Your task to perform on an android device: install app "Google Keep" Image 0: 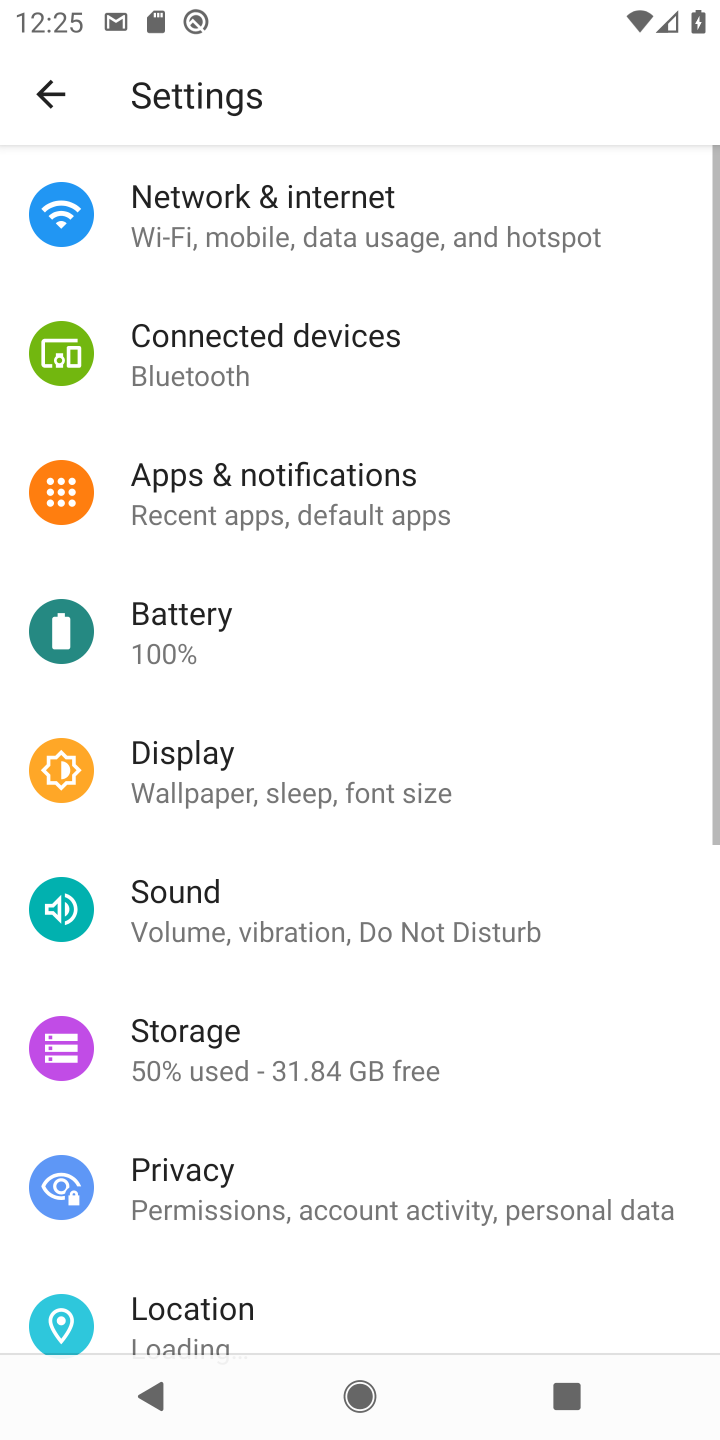
Step 0: press home button
Your task to perform on an android device: install app "Google Keep" Image 1: 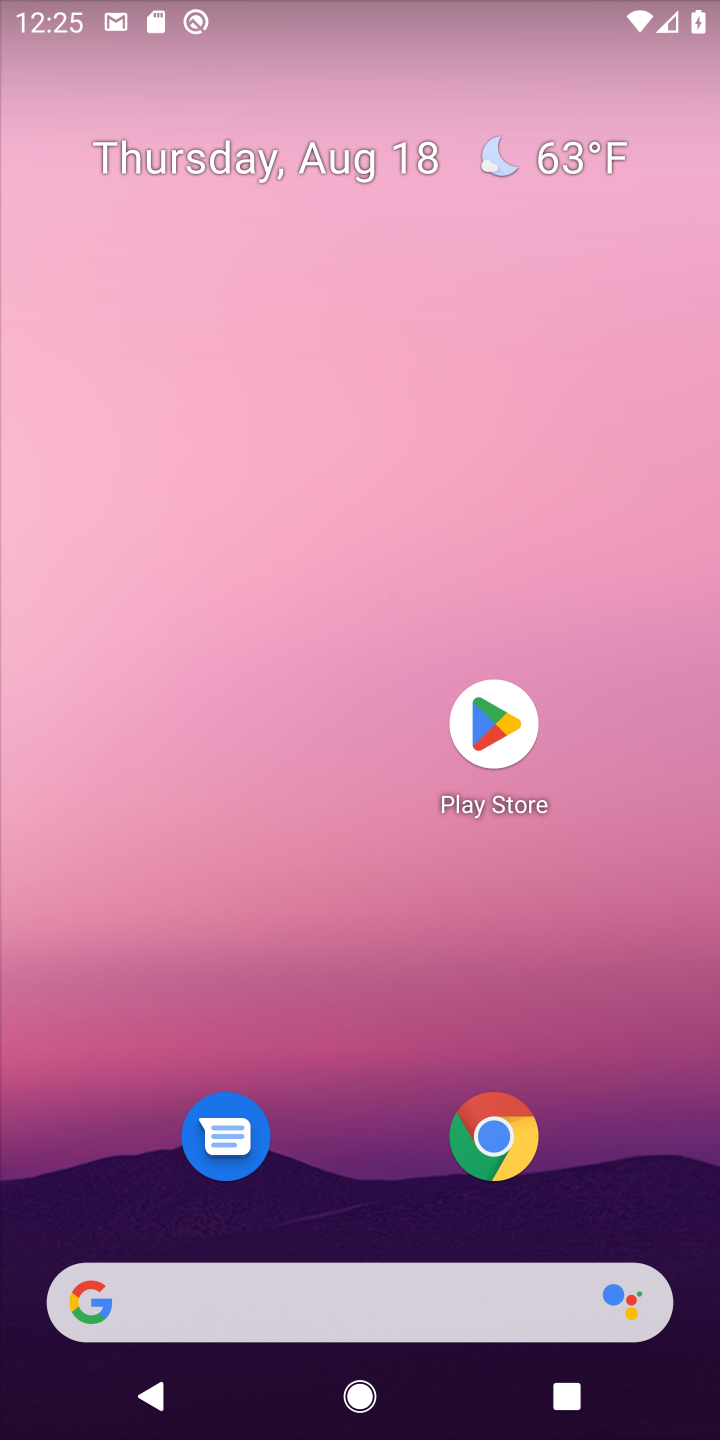
Step 1: click (490, 721)
Your task to perform on an android device: install app "Google Keep" Image 2: 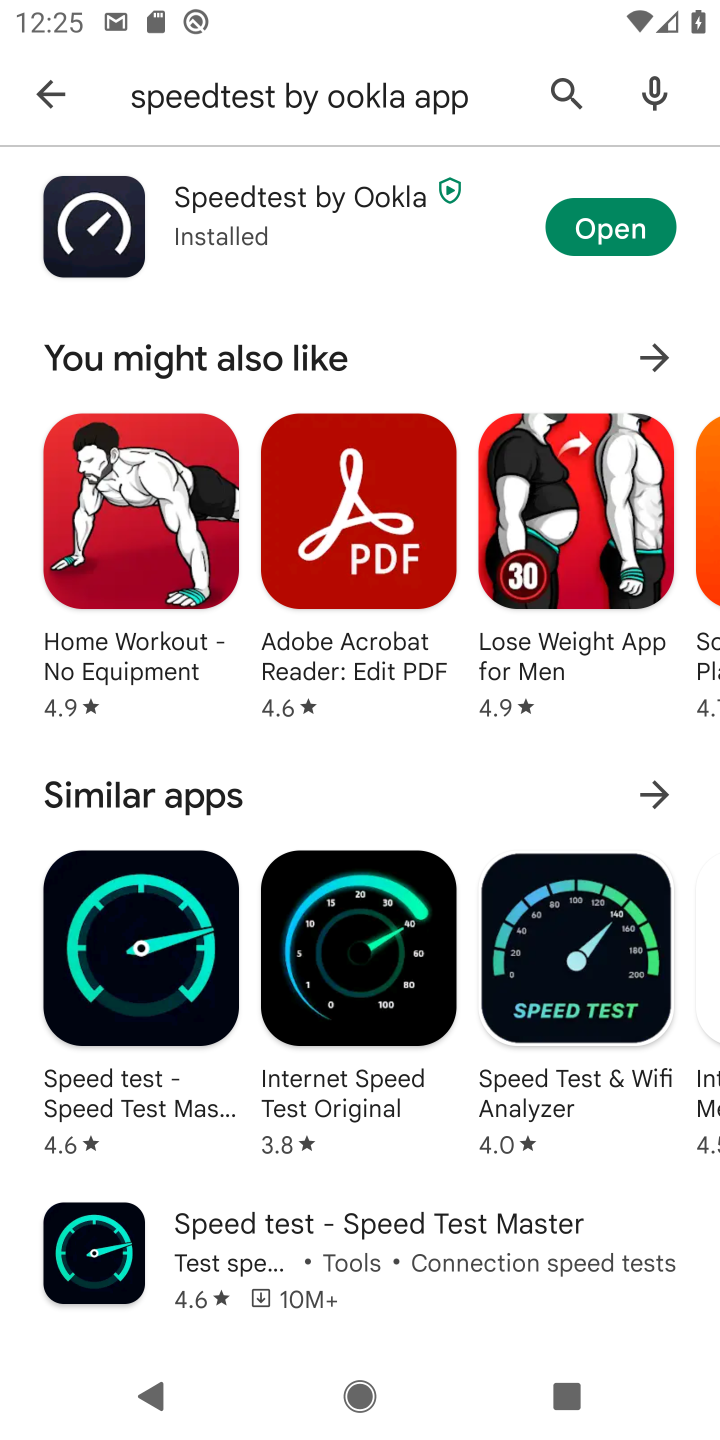
Step 2: click (549, 88)
Your task to perform on an android device: install app "Google Keep" Image 3: 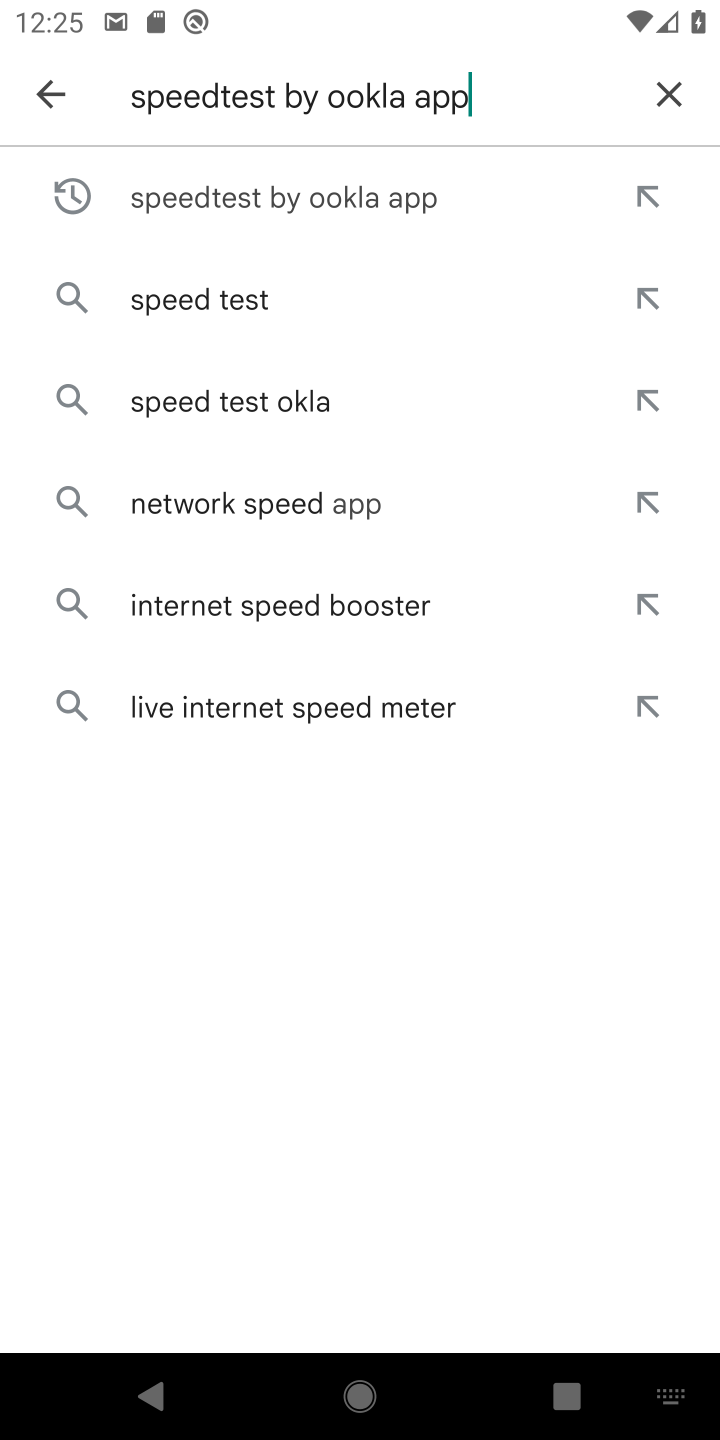
Step 3: click (664, 81)
Your task to perform on an android device: install app "Google Keep" Image 4: 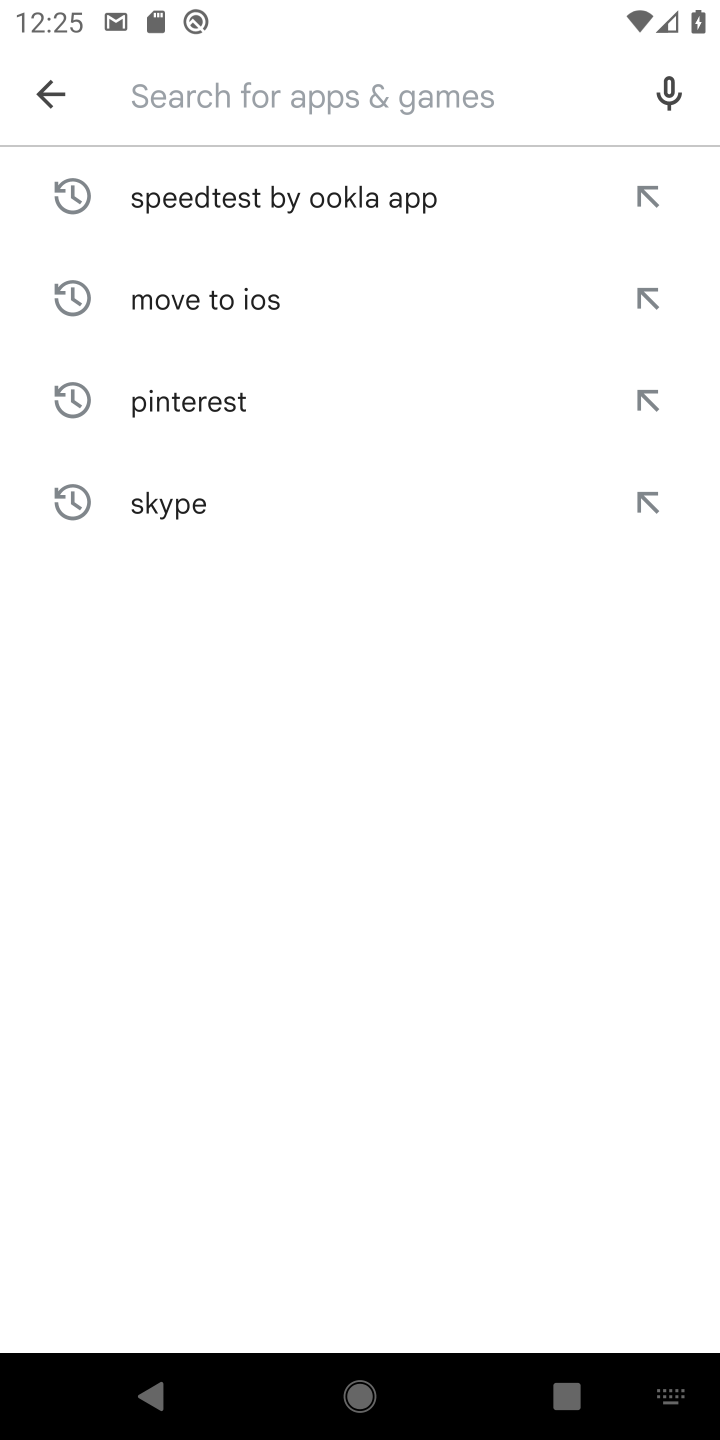
Step 4: type "Google Keep"
Your task to perform on an android device: install app "Google Keep" Image 5: 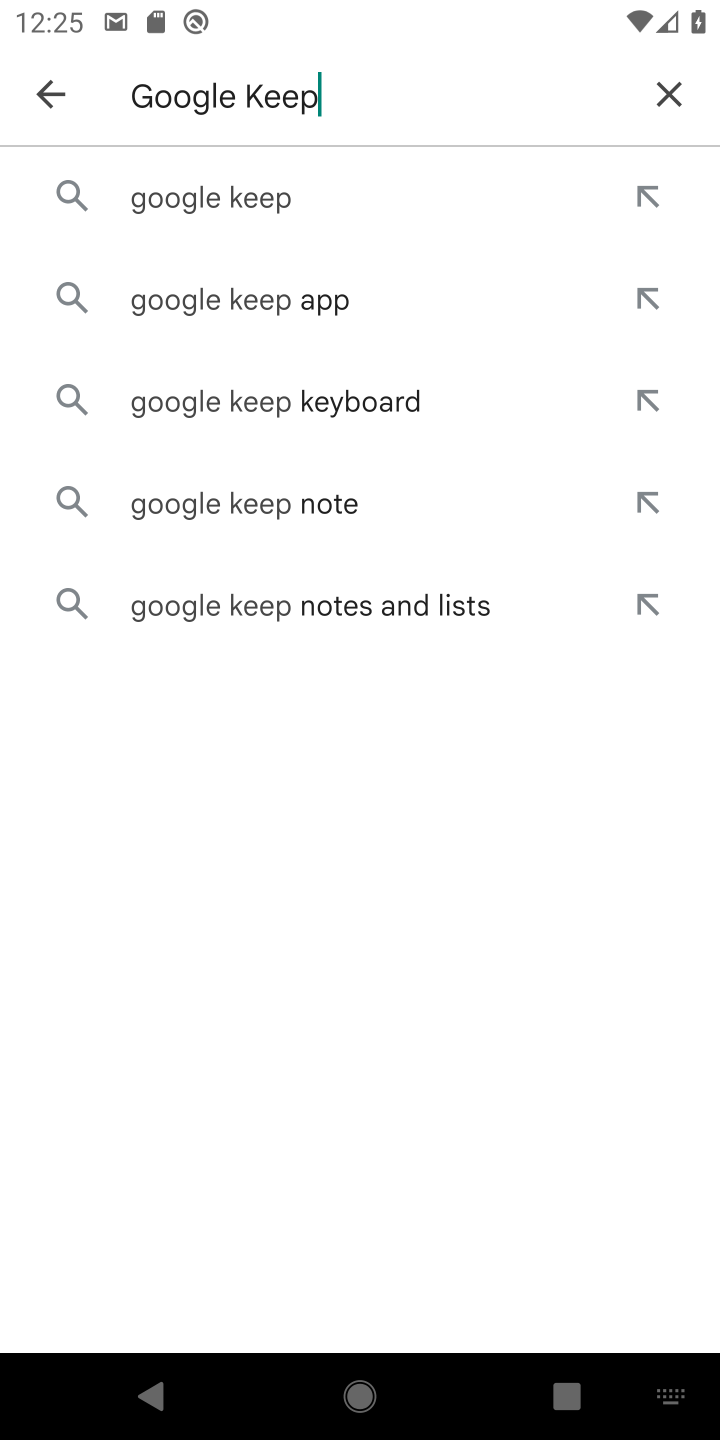
Step 5: click (167, 211)
Your task to perform on an android device: install app "Google Keep" Image 6: 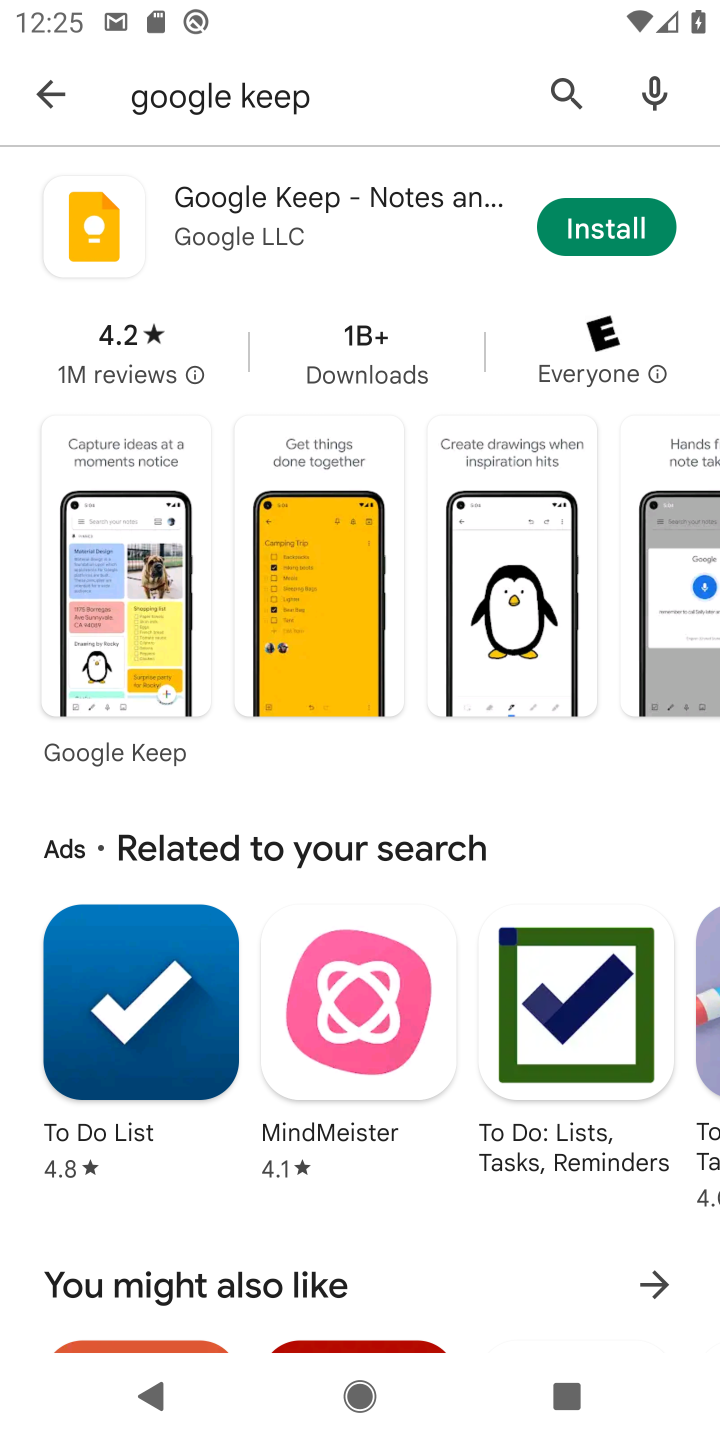
Step 6: click (627, 223)
Your task to perform on an android device: install app "Google Keep" Image 7: 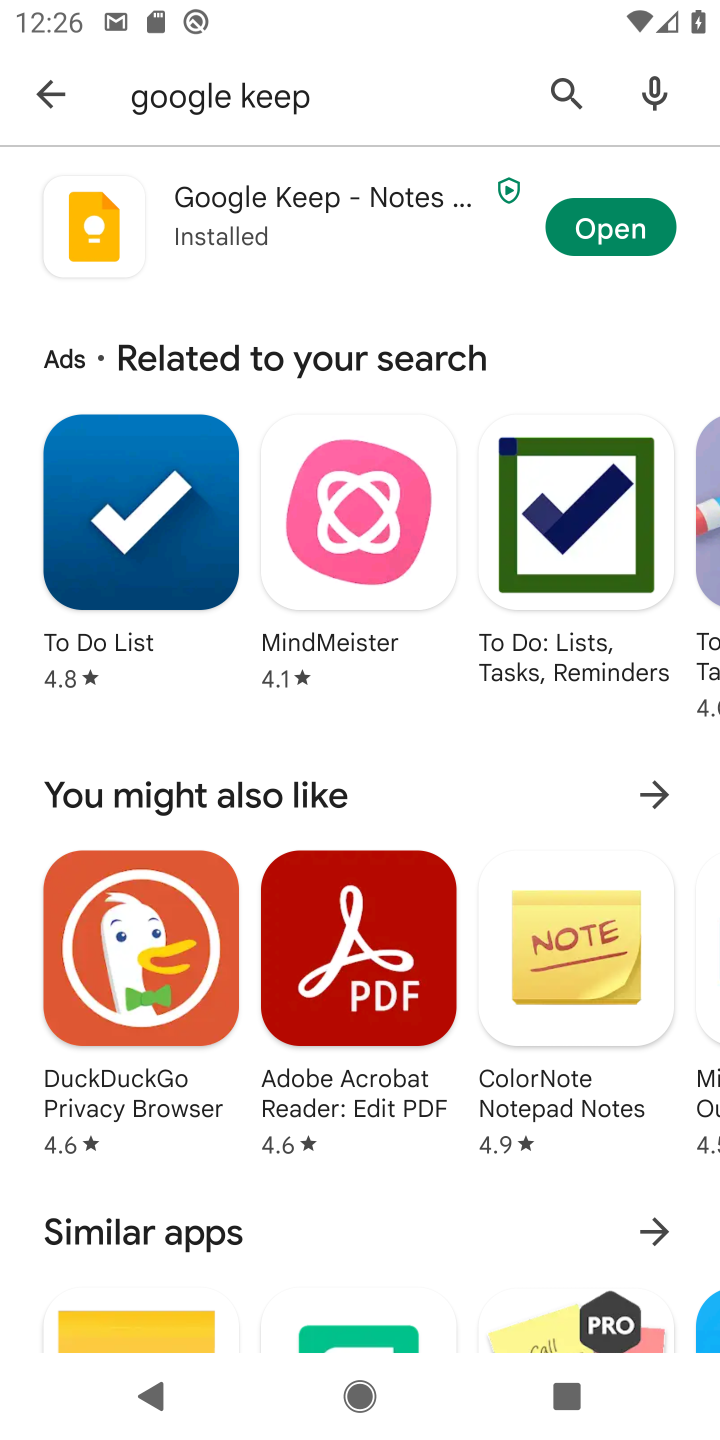
Step 7: task complete